Your task to perform on an android device: turn off notifications in google photos Image 0: 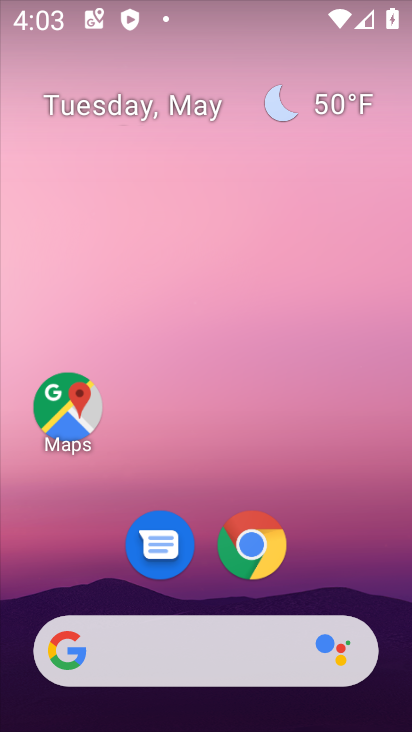
Step 0: drag from (197, 618) to (313, 24)
Your task to perform on an android device: turn off notifications in google photos Image 1: 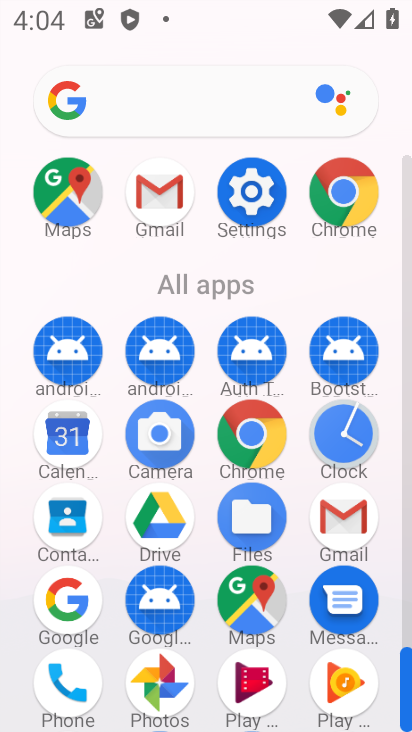
Step 1: drag from (195, 564) to (207, 308)
Your task to perform on an android device: turn off notifications in google photos Image 2: 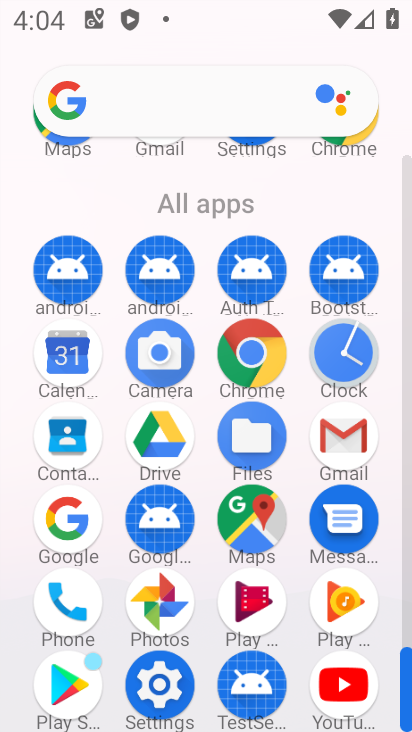
Step 2: click (169, 603)
Your task to perform on an android device: turn off notifications in google photos Image 3: 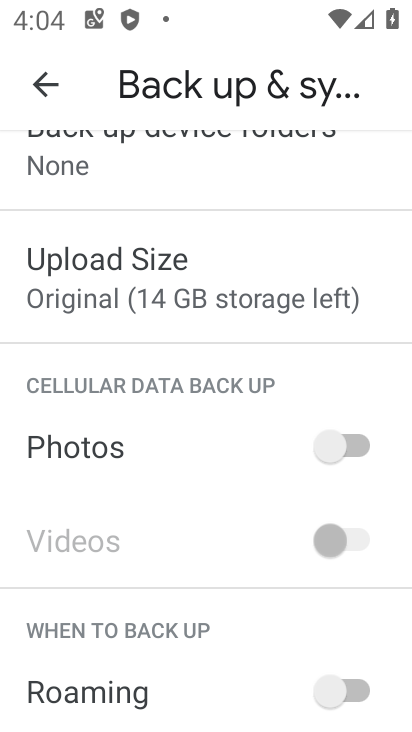
Step 3: drag from (206, 229) to (217, 499)
Your task to perform on an android device: turn off notifications in google photos Image 4: 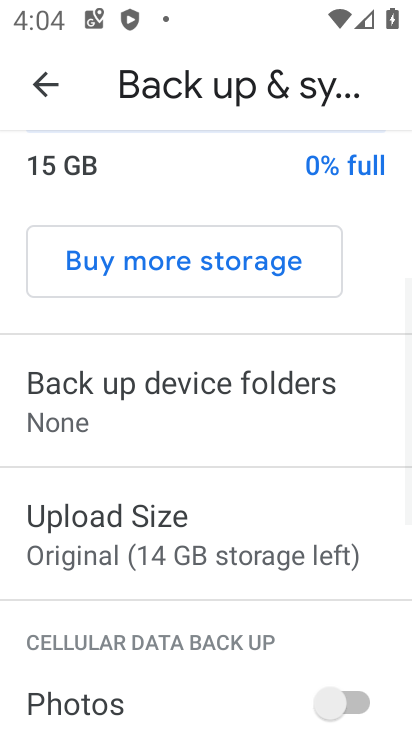
Step 4: click (40, 86)
Your task to perform on an android device: turn off notifications in google photos Image 5: 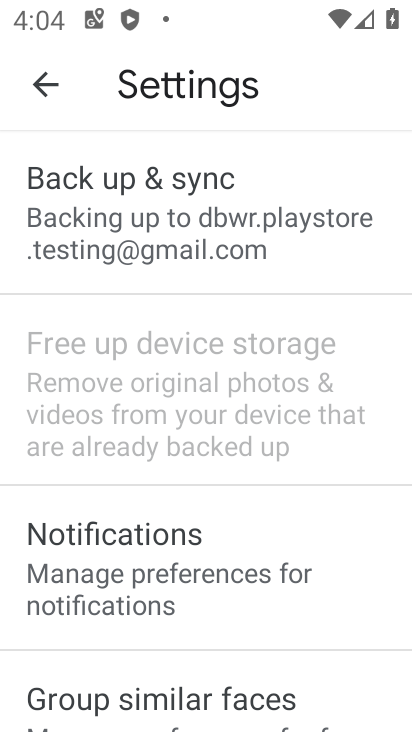
Step 5: click (195, 555)
Your task to perform on an android device: turn off notifications in google photos Image 6: 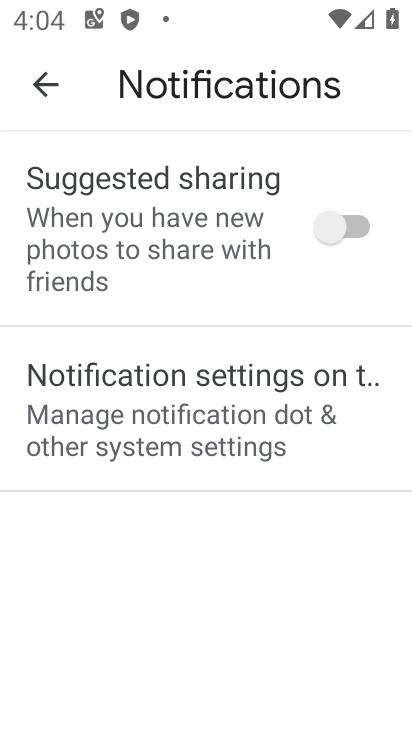
Step 6: click (137, 429)
Your task to perform on an android device: turn off notifications in google photos Image 7: 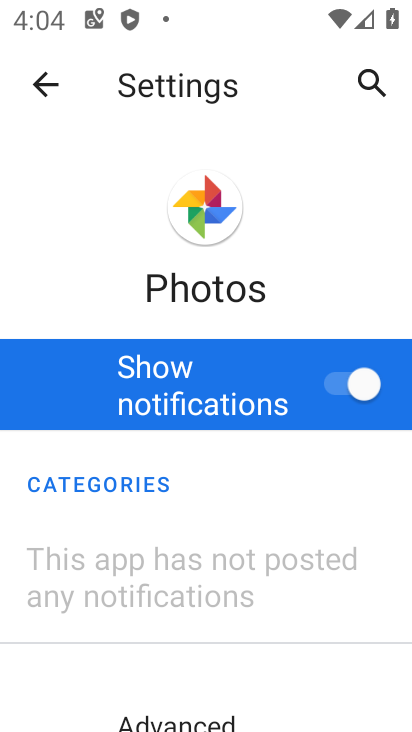
Step 7: click (331, 375)
Your task to perform on an android device: turn off notifications in google photos Image 8: 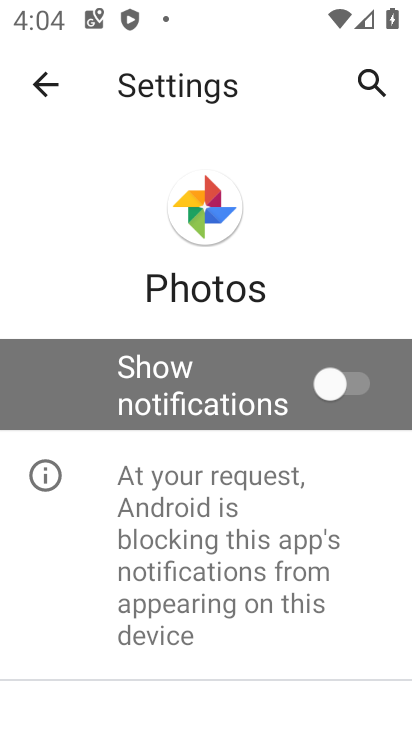
Step 8: task complete